Your task to perform on an android device: toggle wifi Image 0: 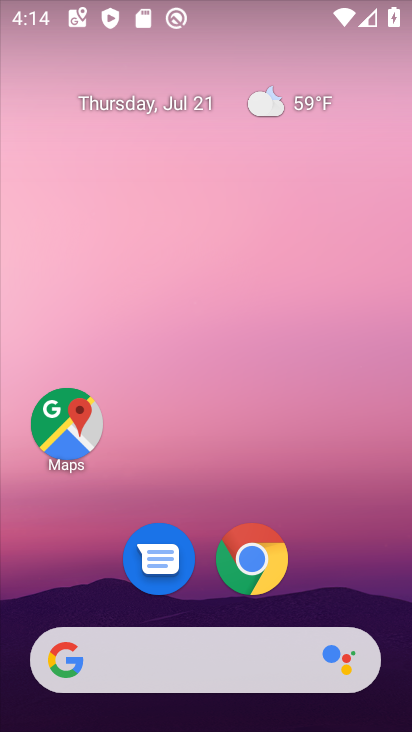
Step 0: drag from (191, 6) to (209, 540)
Your task to perform on an android device: toggle wifi Image 1: 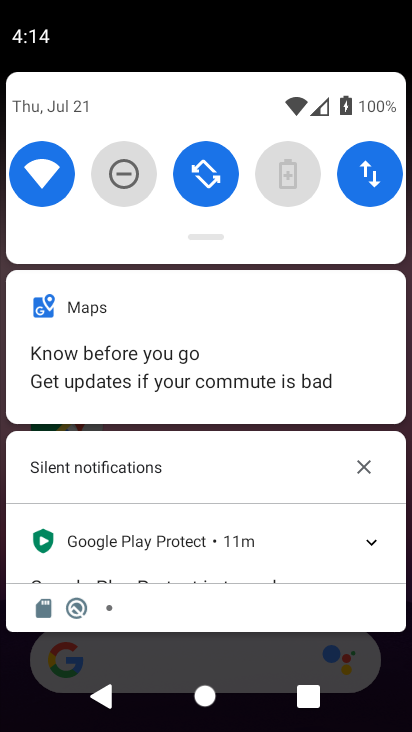
Step 1: click (33, 180)
Your task to perform on an android device: toggle wifi Image 2: 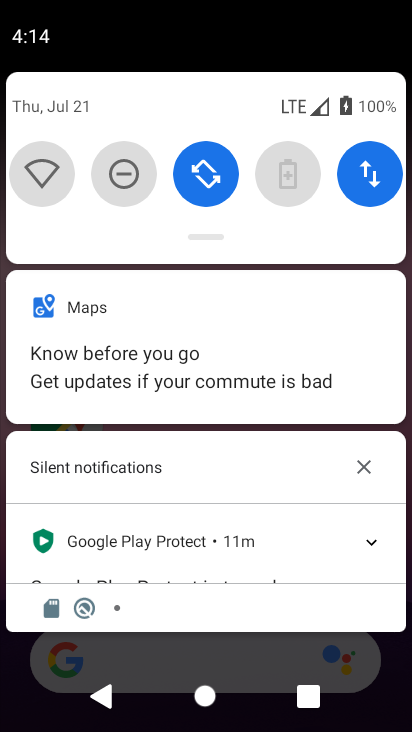
Step 2: task complete